Your task to perform on an android device: open app "Cash App" Image 0: 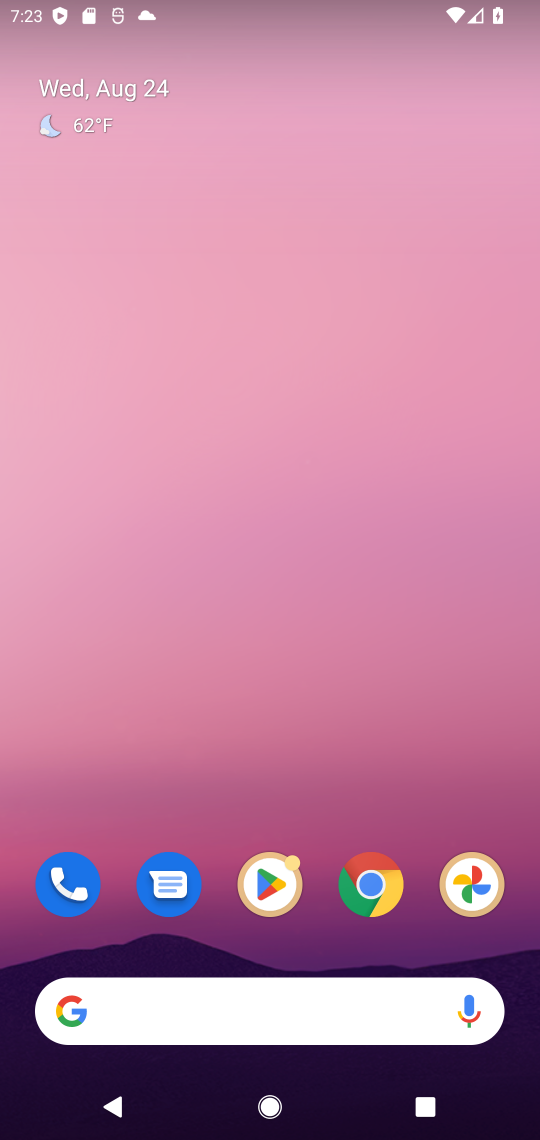
Step 0: click (283, 902)
Your task to perform on an android device: open app "Cash App" Image 1: 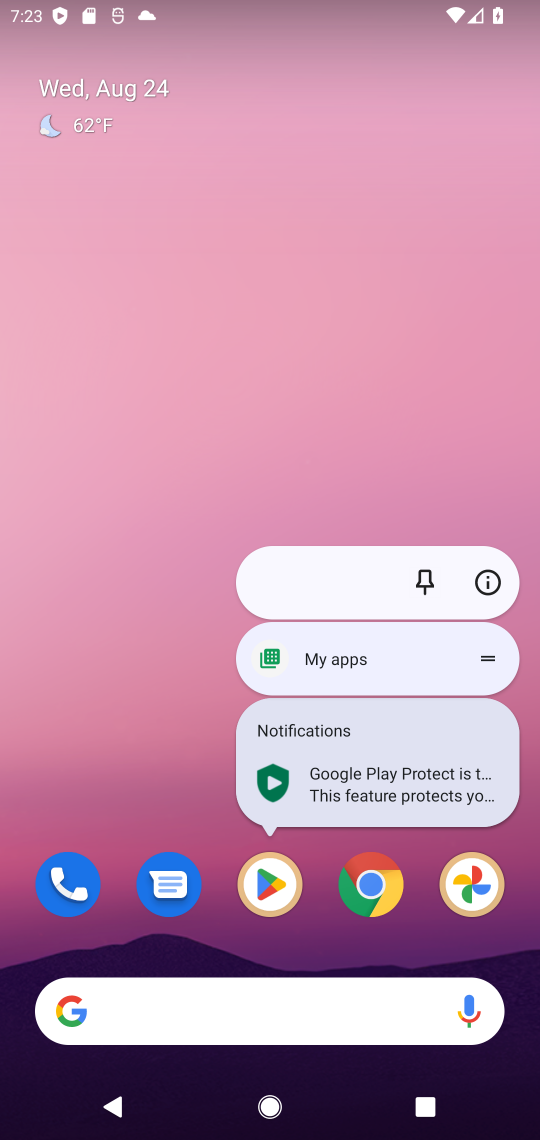
Step 1: click (265, 902)
Your task to perform on an android device: open app "Cash App" Image 2: 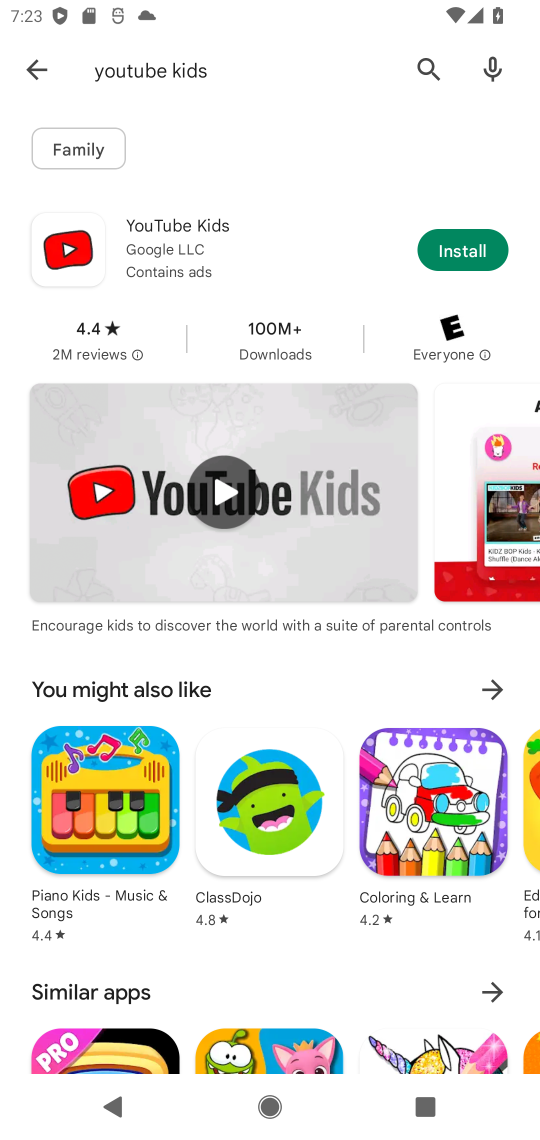
Step 2: click (413, 66)
Your task to perform on an android device: open app "Cash App" Image 3: 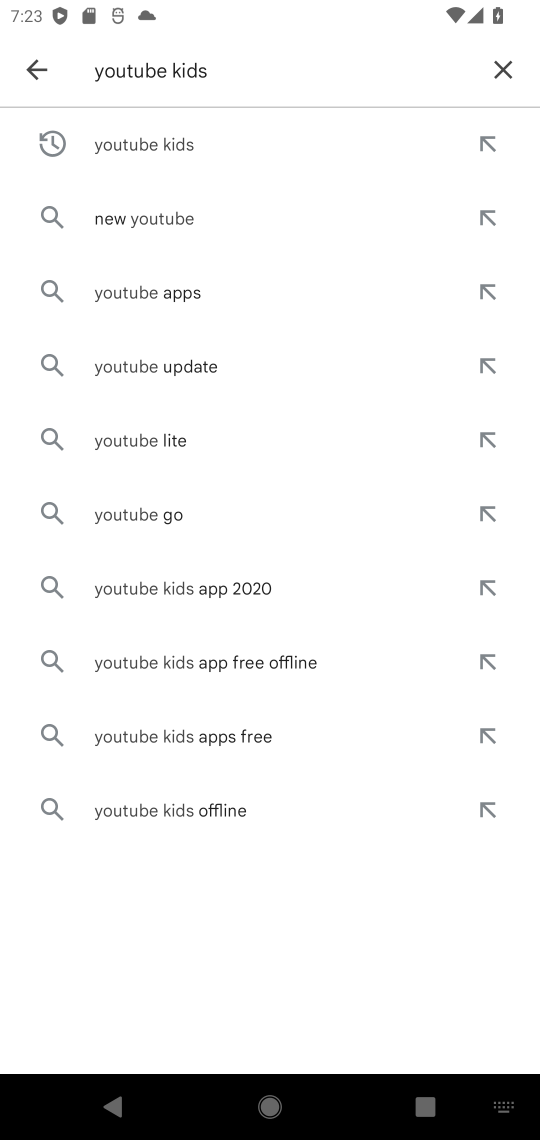
Step 3: click (502, 66)
Your task to perform on an android device: open app "Cash App" Image 4: 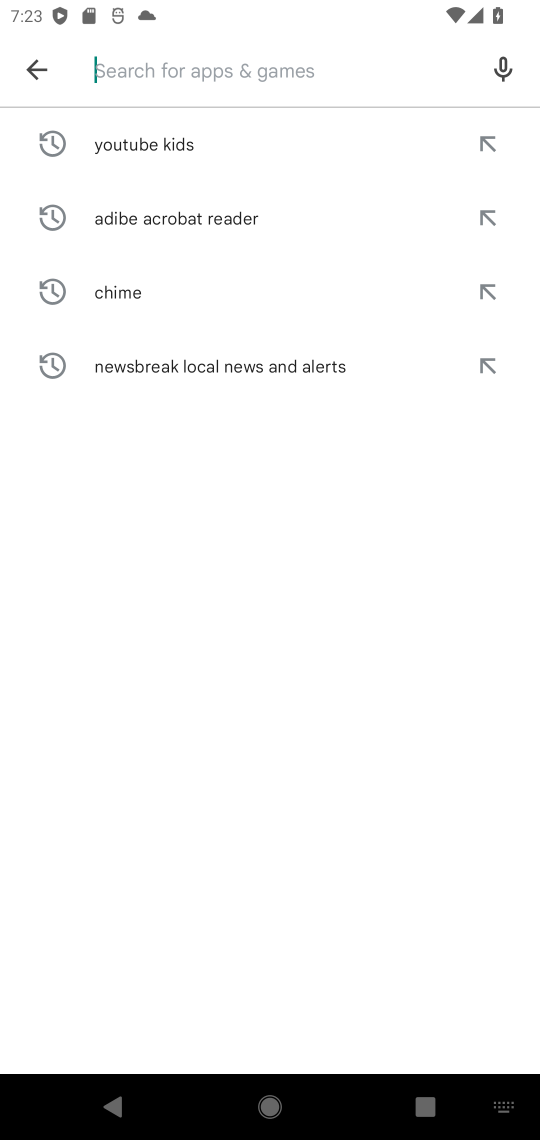
Step 4: type "cash app"
Your task to perform on an android device: open app "Cash App" Image 5: 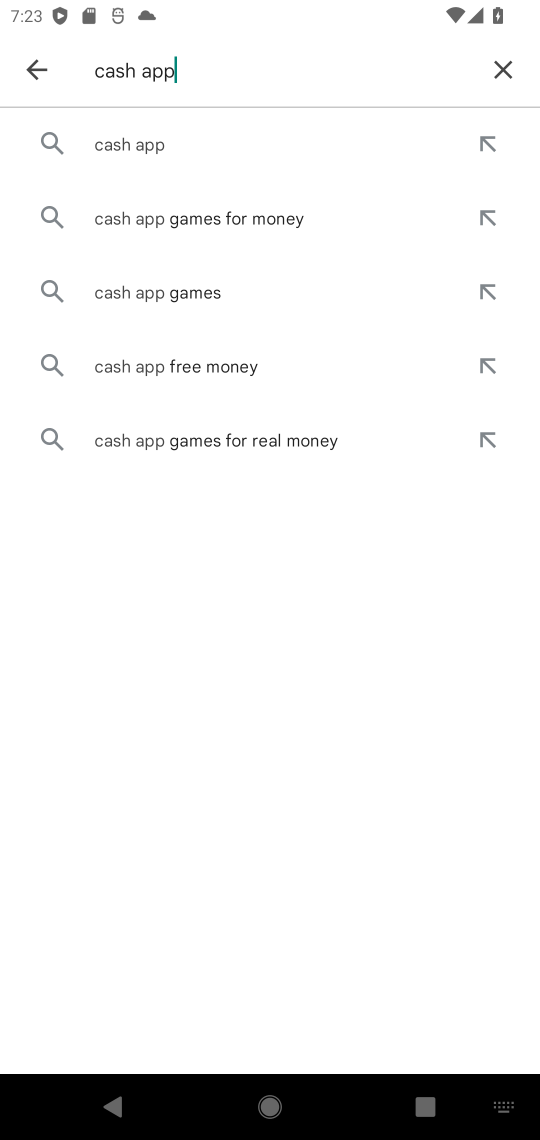
Step 5: click (169, 123)
Your task to perform on an android device: open app "Cash App" Image 6: 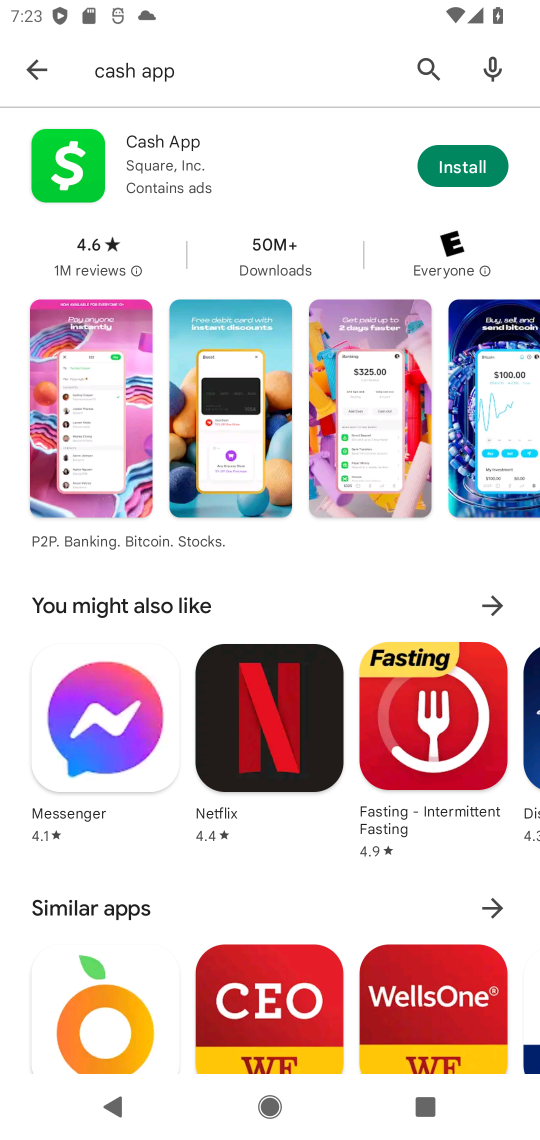
Step 6: task complete